Your task to perform on an android device: What is the speed of a rocket? Image 0: 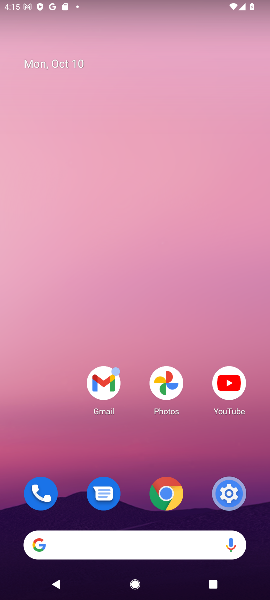
Step 0: click (121, 548)
Your task to perform on an android device: What is the speed of a rocket? Image 1: 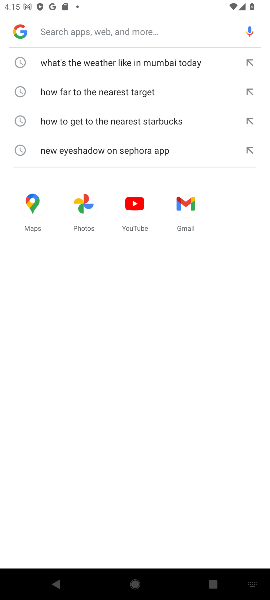
Step 1: type "What is the speed of a rocket?"
Your task to perform on an android device: What is the speed of a rocket? Image 2: 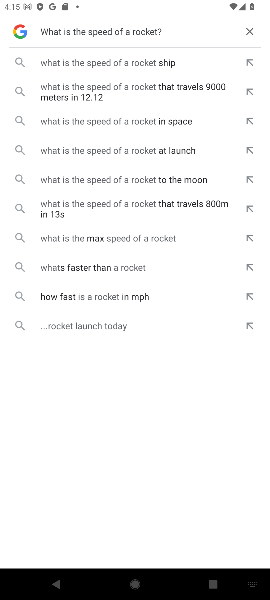
Step 2: click (164, 66)
Your task to perform on an android device: What is the speed of a rocket? Image 3: 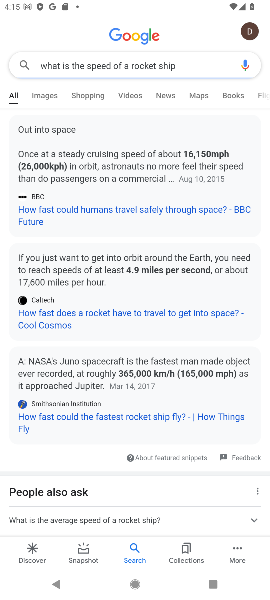
Step 3: task complete